Your task to perform on an android device: set the timer Image 0: 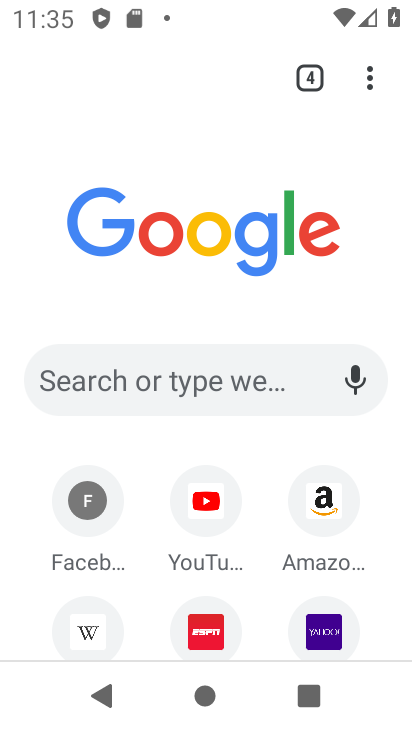
Step 0: press home button
Your task to perform on an android device: set the timer Image 1: 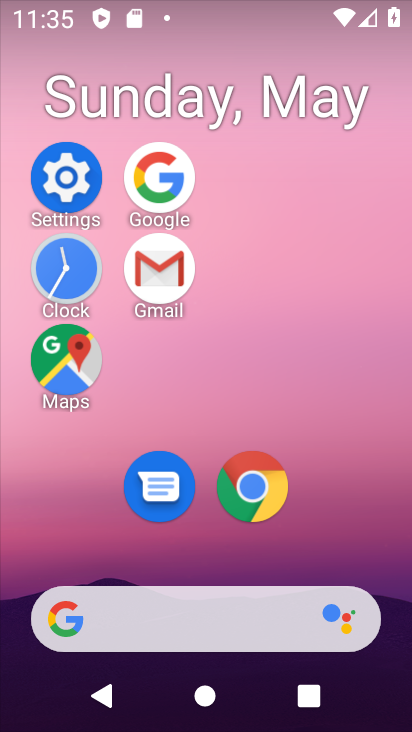
Step 1: click (53, 287)
Your task to perform on an android device: set the timer Image 2: 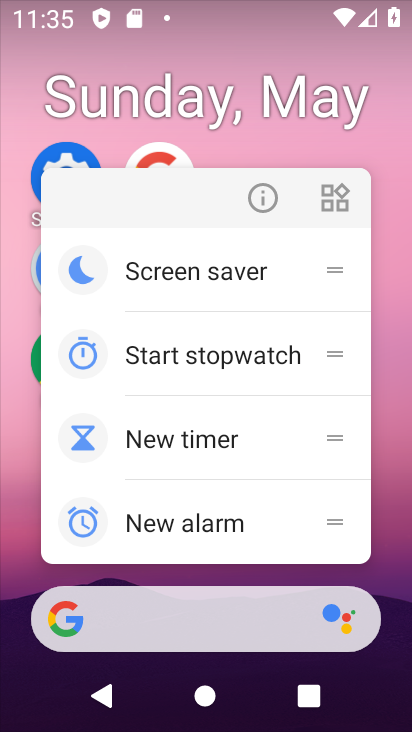
Step 2: click (355, 142)
Your task to perform on an android device: set the timer Image 3: 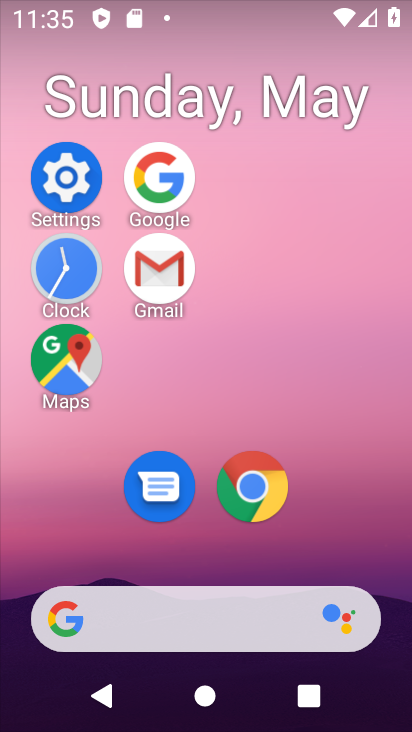
Step 3: click (53, 263)
Your task to perform on an android device: set the timer Image 4: 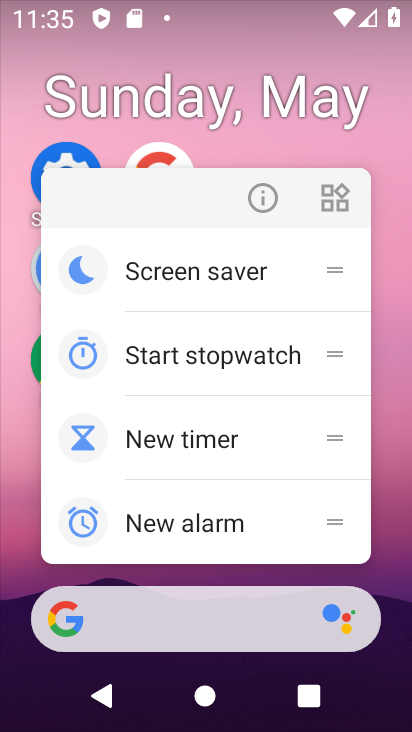
Step 4: click (243, 140)
Your task to perform on an android device: set the timer Image 5: 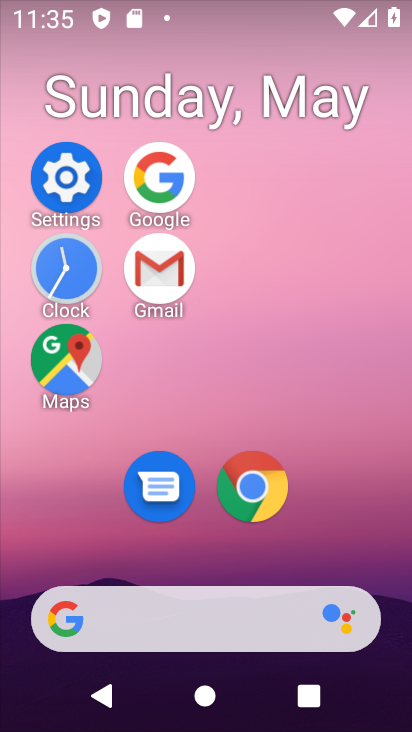
Step 5: click (68, 271)
Your task to perform on an android device: set the timer Image 6: 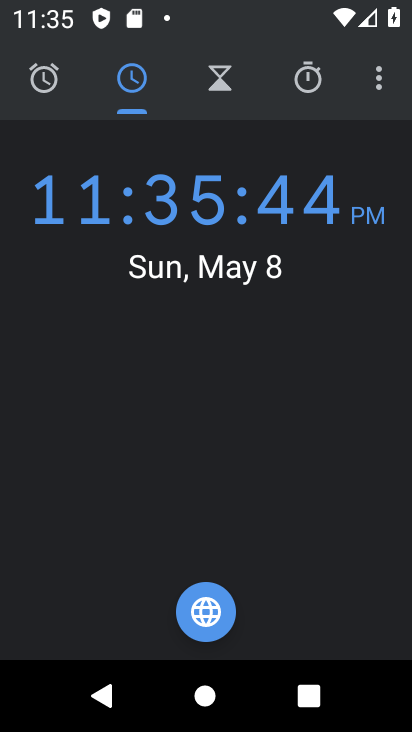
Step 6: click (211, 100)
Your task to perform on an android device: set the timer Image 7: 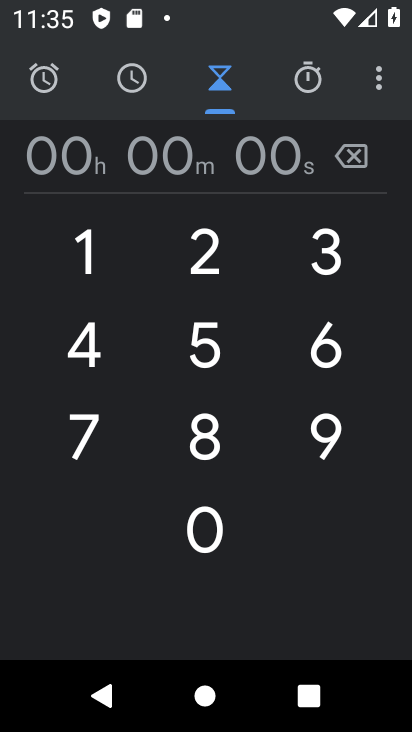
Step 7: click (212, 258)
Your task to perform on an android device: set the timer Image 8: 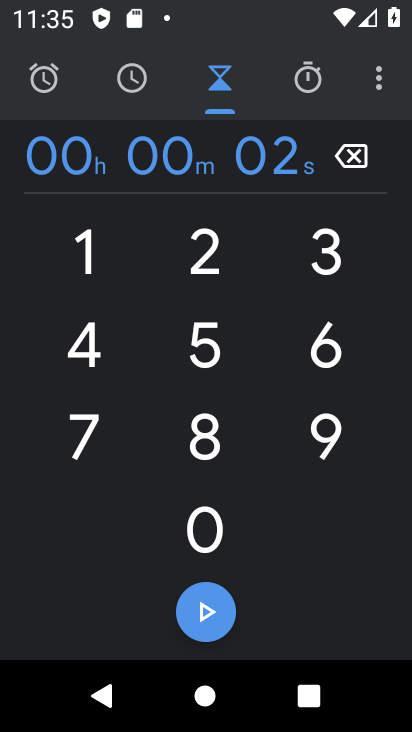
Step 8: click (212, 258)
Your task to perform on an android device: set the timer Image 9: 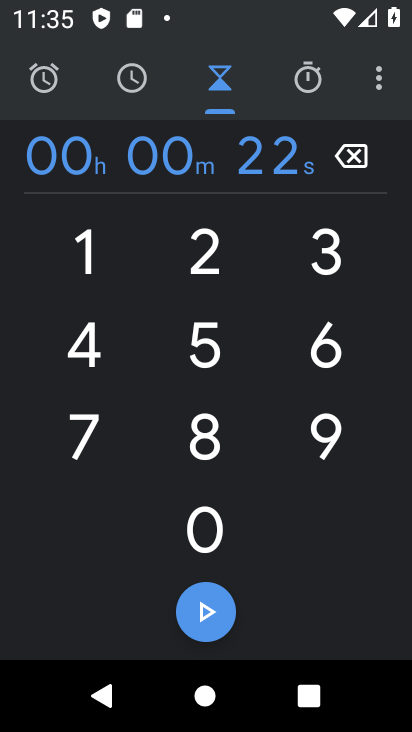
Step 9: click (200, 622)
Your task to perform on an android device: set the timer Image 10: 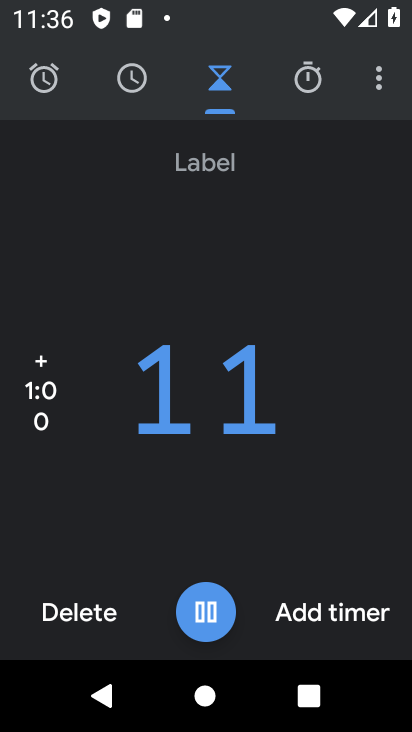
Step 10: task complete